Your task to perform on an android device: move a message to another label in the gmail app Image 0: 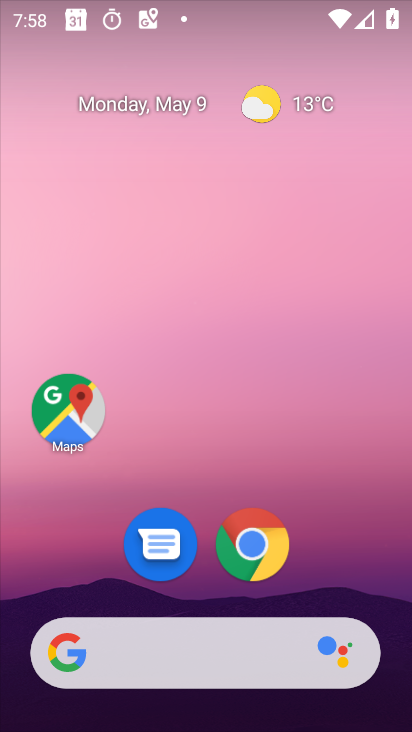
Step 0: drag from (392, 536) to (375, 182)
Your task to perform on an android device: move a message to another label in the gmail app Image 1: 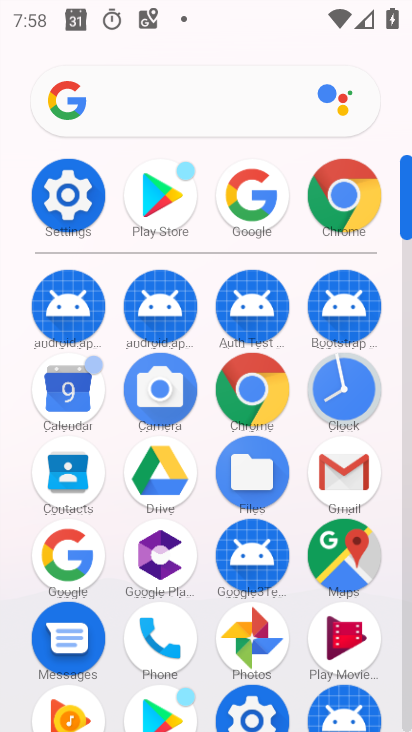
Step 1: click (356, 477)
Your task to perform on an android device: move a message to another label in the gmail app Image 2: 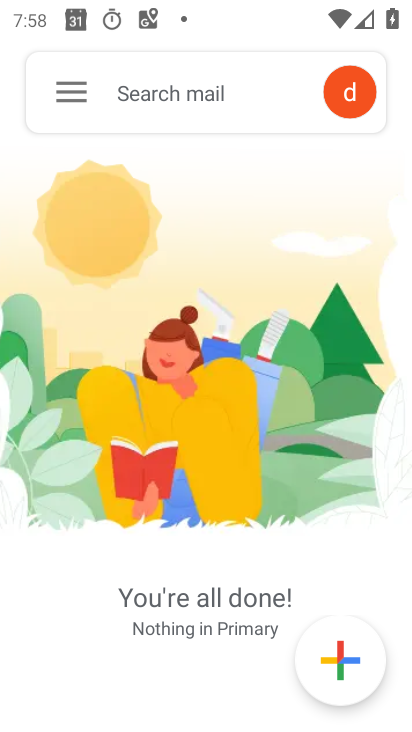
Step 2: click (83, 90)
Your task to perform on an android device: move a message to another label in the gmail app Image 3: 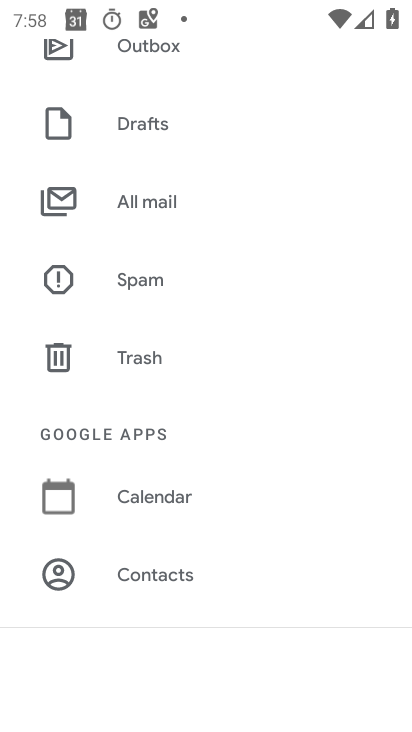
Step 3: click (159, 212)
Your task to perform on an android device: move a message to another label in the gmail app Image 4: 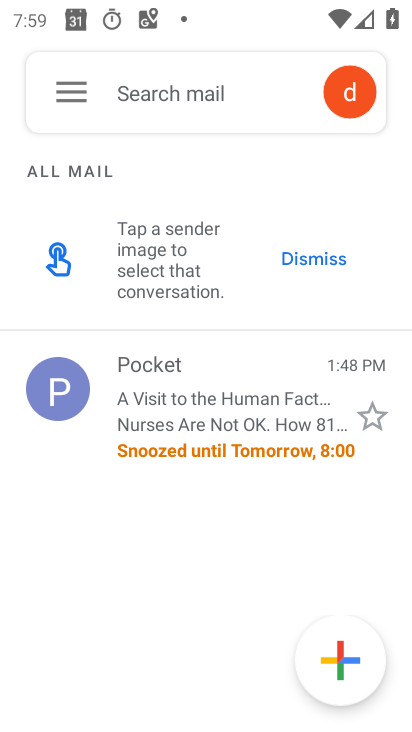
Step 4: click (208, 406)
Your task to perform on an android device: move a message to another label in the gmail app Image 5: 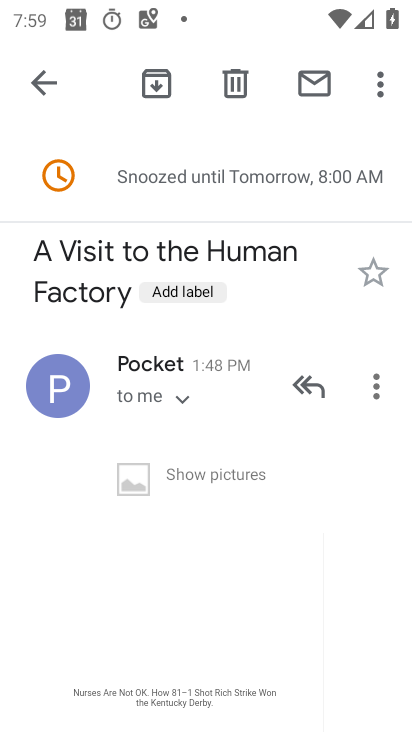
Step 5: click (355, 367)
Your task to perform on an android device: move a message to another label in the gmail app Image 6: 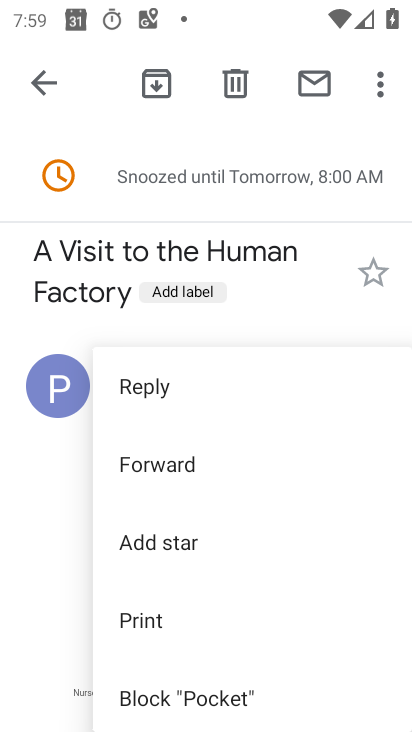
Step 6: click (382, 94)
Your task to perform on an android device: move a message to another label in the gmail app Image 7: 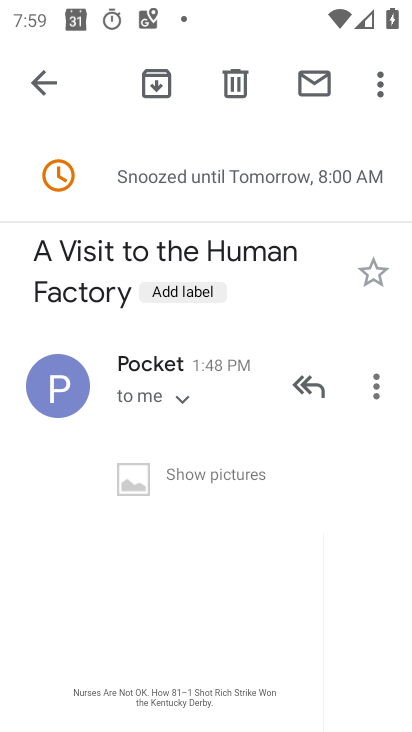
Step 7: click (382, 94)
Your task to perform on an android device: move a message to another label in the gmail app Image 8: 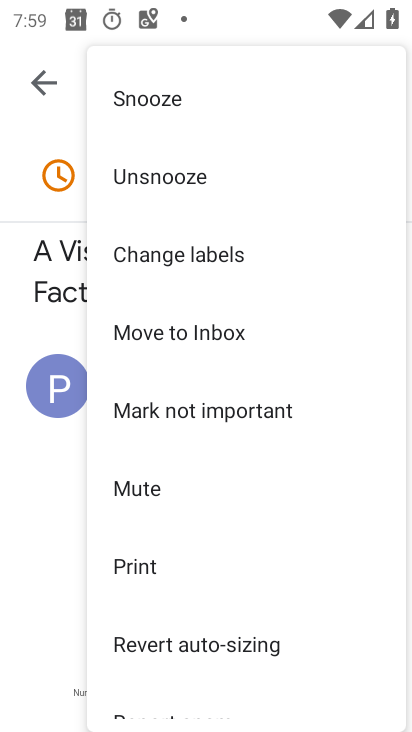
Step 8: drag from (186, 649) to (185, 255)
Your task to perform on an android device: move a message to another label in the gmail app Image 9: 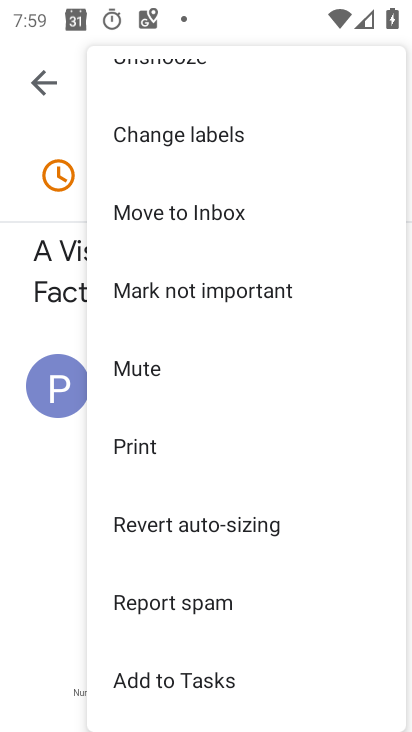
Step 9: drag from (335, 230) to (371, 533)
Your task to perform on an android device: move a message to another label in the gmail app Image 10: 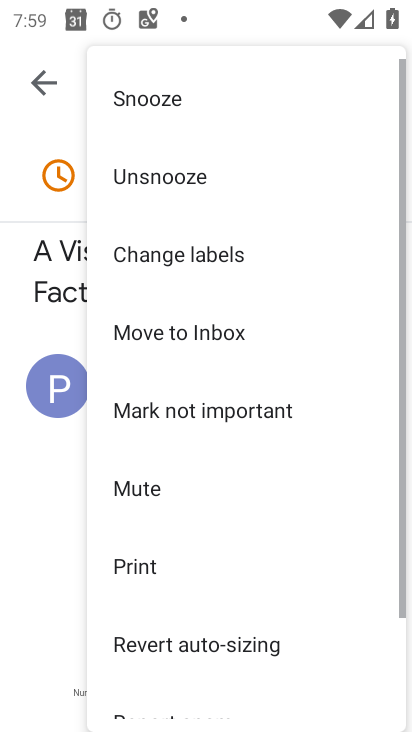
Step 10: click (175, 255)
Your task to perform on an android device: move a message to another label in the gmail app Image 11: 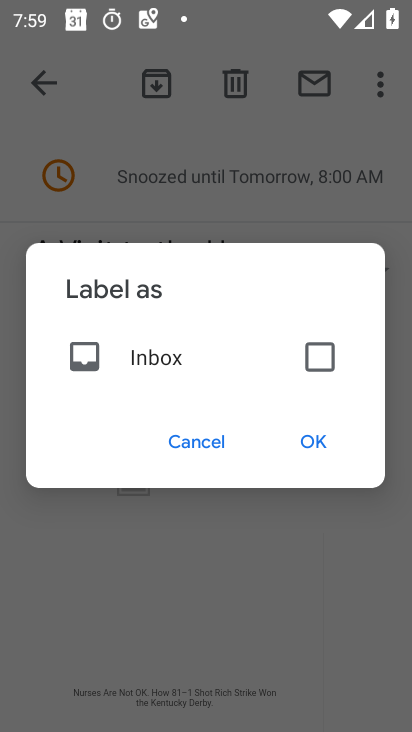
Step 11: click (320, 350)
Your task to perform on an android device: move a message to another label in the gmail app Image 12: 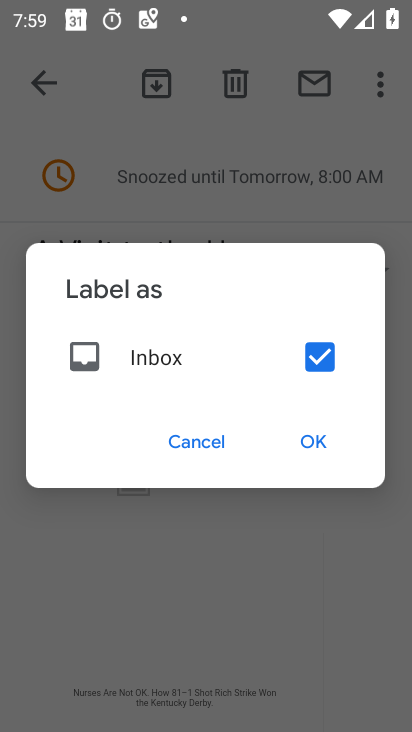
Step 12: click (319, 445)
Your task to perform on an android device: move a message to another label in the gmail app Image 13: 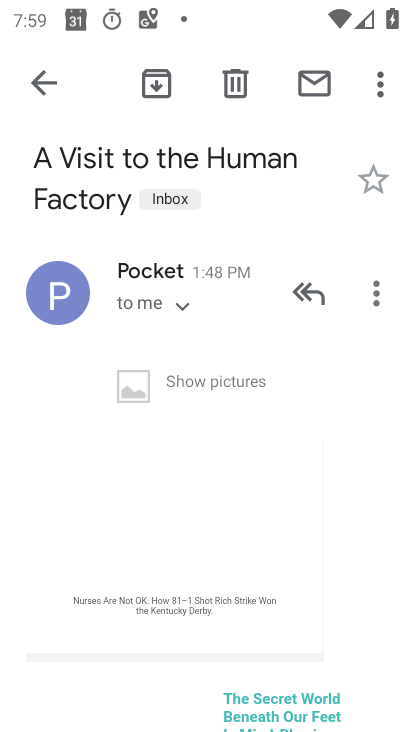
Step 13: task complete